Your task to perform on an android device: Do I have any events today? Image 0: 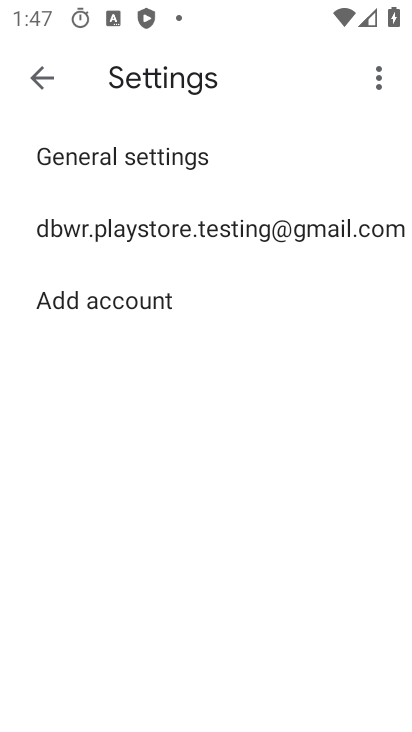
Step 0: press home button
Your task to perform on an android device: Do I have any events today? Image 1: 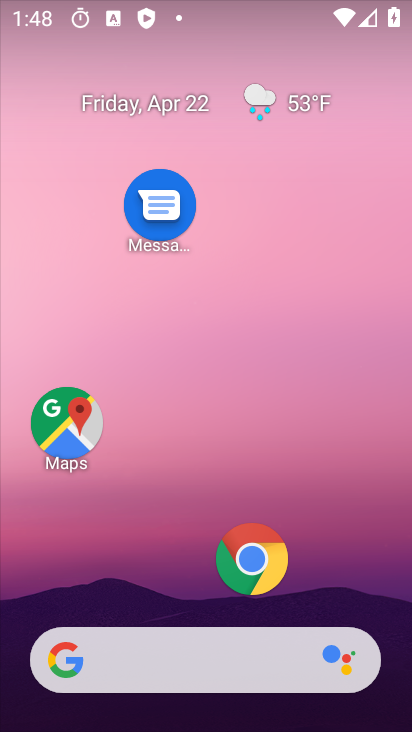
Step 1: drag from (131, 631) to (226, 130)
Your task to perform on an android device: Do I have any events today? Image 2: 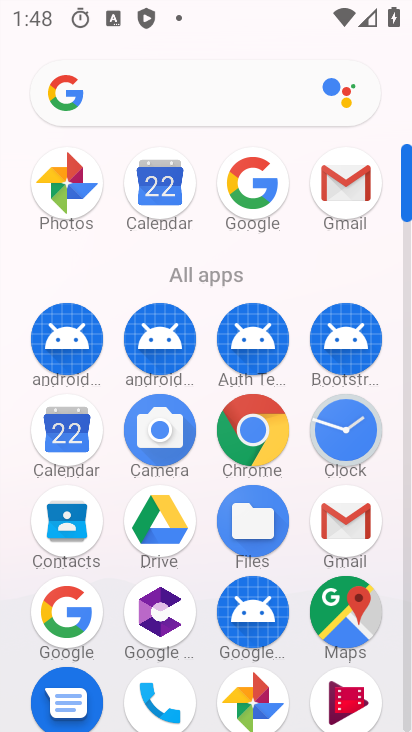
Step 2: click (170, 191)
Your task to perform on an android device: Do I have any events today? Image 3: 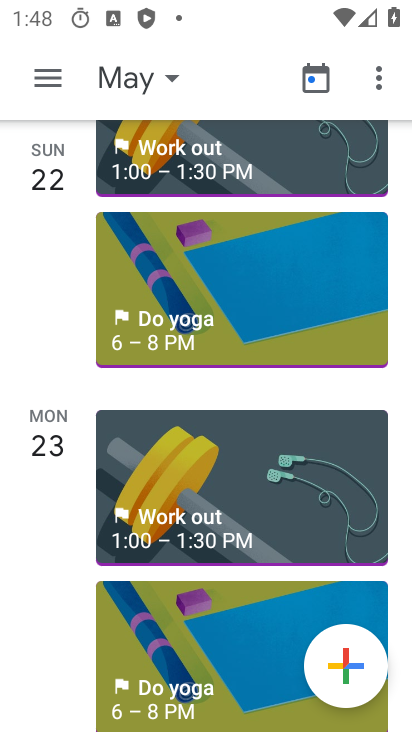
Step 3: click (123, 84)
Your task to perform on an android device: Do I have any events today? Image 4: 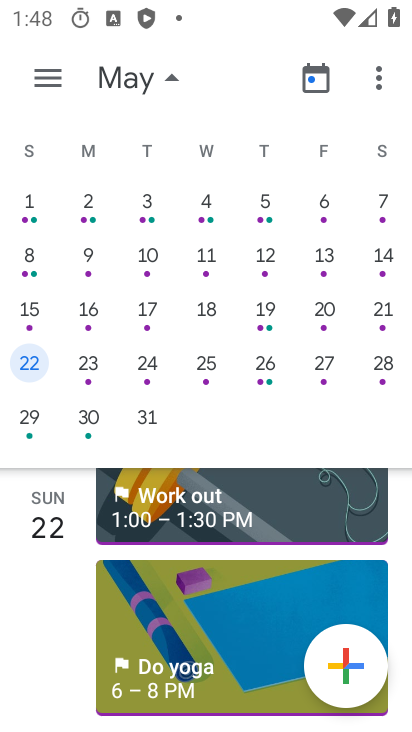
Step 4: task complete